Your task to perform on an android device: allow notifications from all sites in the chrome app Image 0: 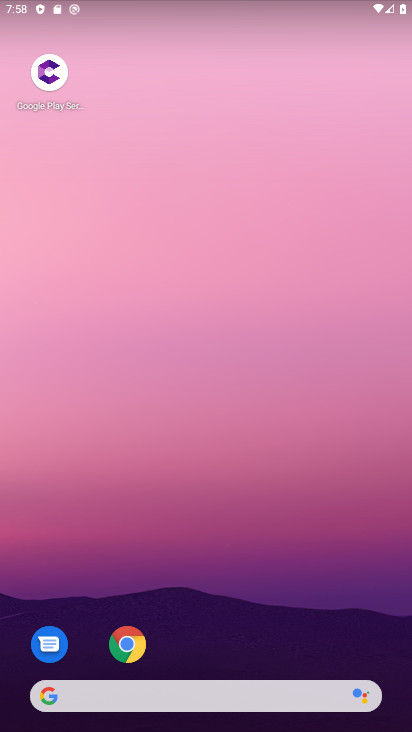
Step 0: click (127, 654)
Your task to perform on an android device: allow notifications from all sites in the chrome app Image 1: 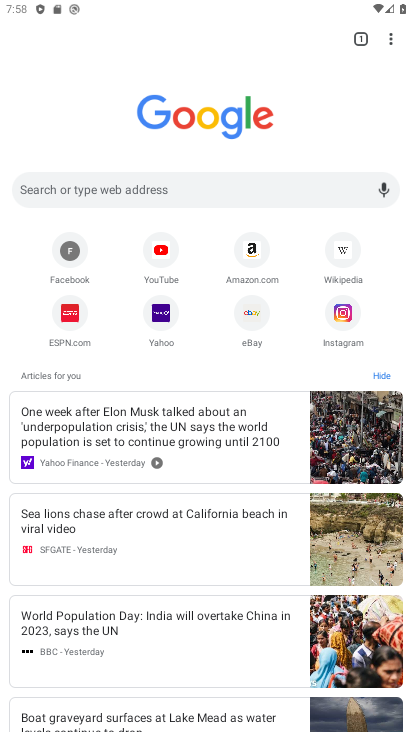
Step 1: click (395, 23)
Your task to perform on an android device: allow notifications from all sites in the chrome app Image 2: 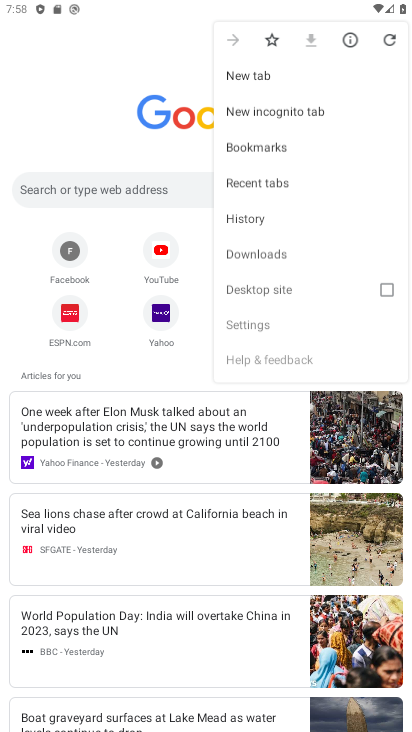
Step 2: click (387, 37)
Your task to perform on an android device: allow notifications from all sites in the chrome app Image 3: 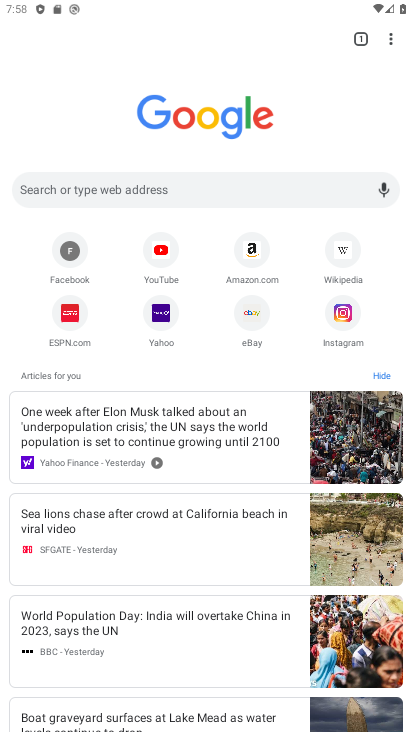
Step 3: click (388, 31)
Your task to perform on an android device: allow notifications from all sites in the chrome app Image 4: 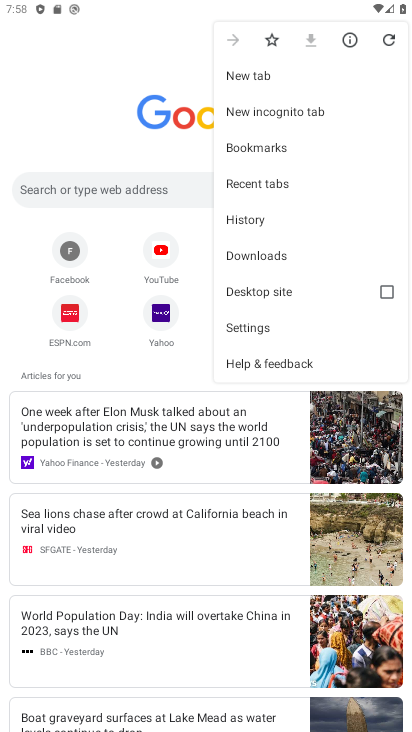
Step 4: click (252, 328)
Your task to perform on an android device: allow notifications from all sites in the chrome app Image 5: 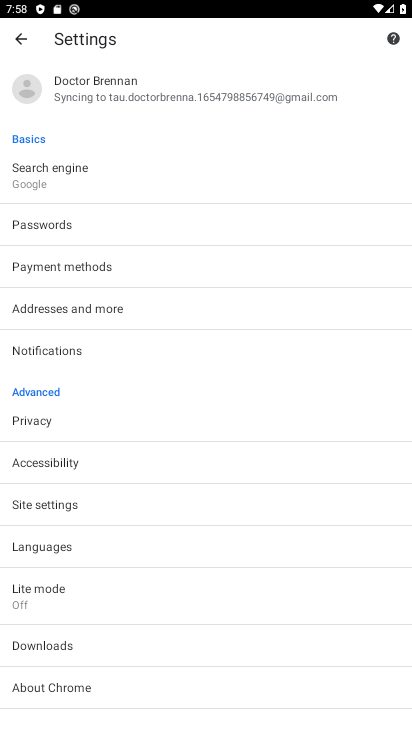
Step 5: click (53, 345)
Your task to perform on an android device: allow notifications from all sites in the chrome app Image 6: 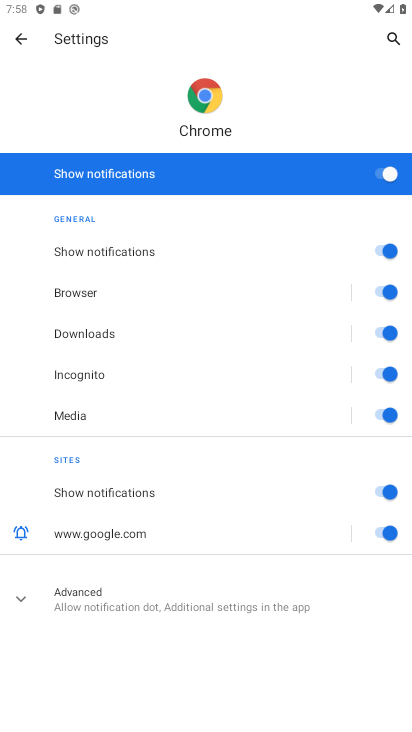
Step 6: task complete